Your task to perform on an android device: Open calendar and show me the second week of next month Image 0: 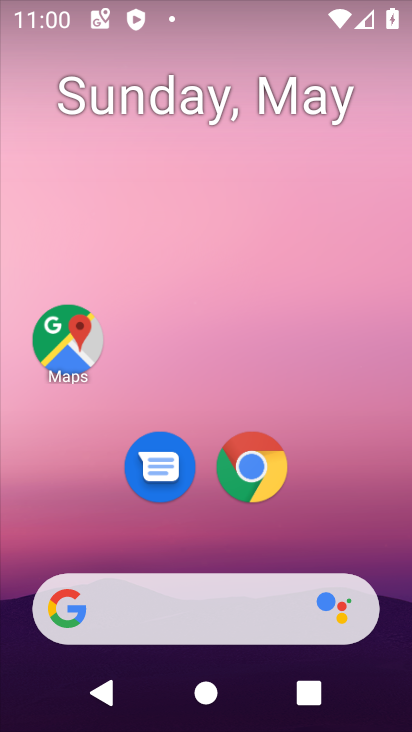
Step 0: drag from (358, 548) to (373, 26)
Your task to perform on an android device: Open calendar and show me the second week of next month Image 1: 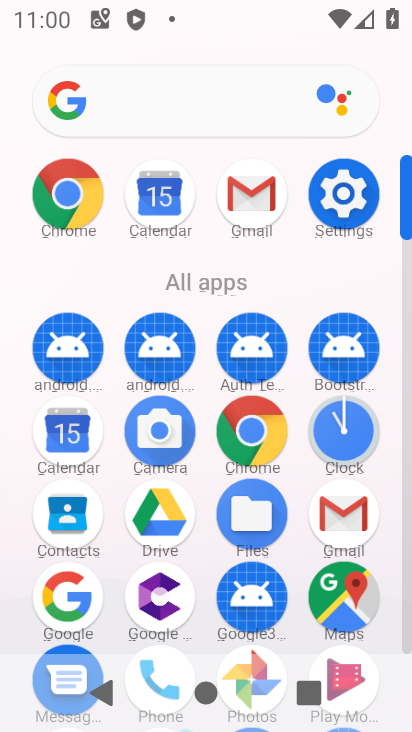
Step 1: click (166, 200)
Your task to perform on an android device: Open calendar and show me the second week of next month Image 2: 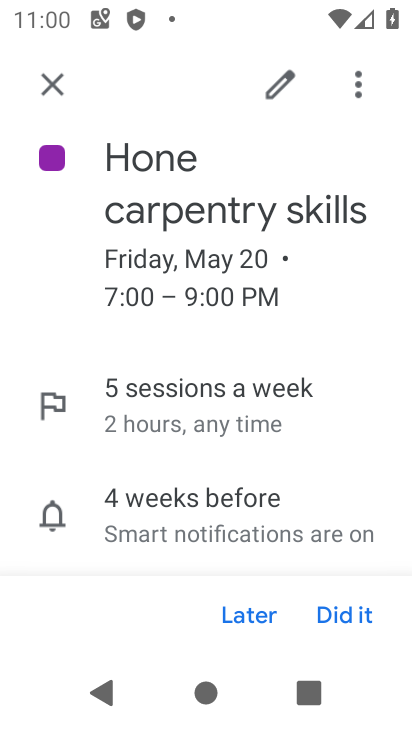
Step 2: click (57, 87)
Your task to perform on an android device: Open calendar and show me the second week of next month Image 3: 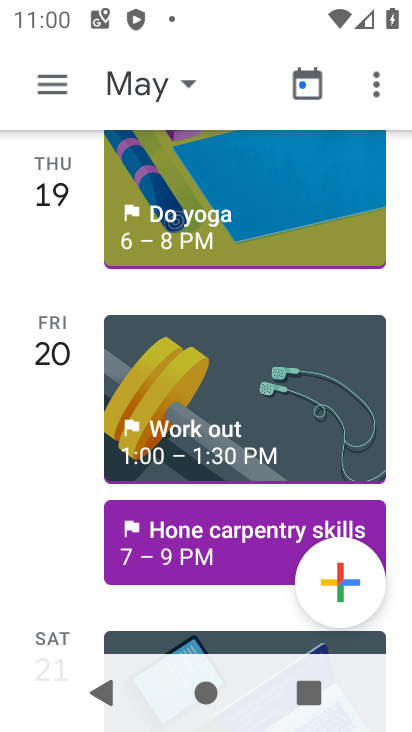
Step 3: click (191, 89)
Your task to perform on an android device: Open calendar and show me the second week of next month Image 4: 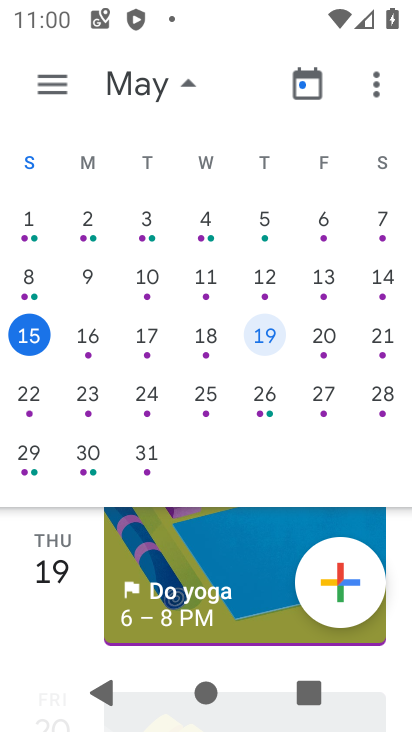
Step 4: drag from (341, 330) to (29, 340)
Your task to perform on an android device: Open calendar and show me the second week of next month Image 5: 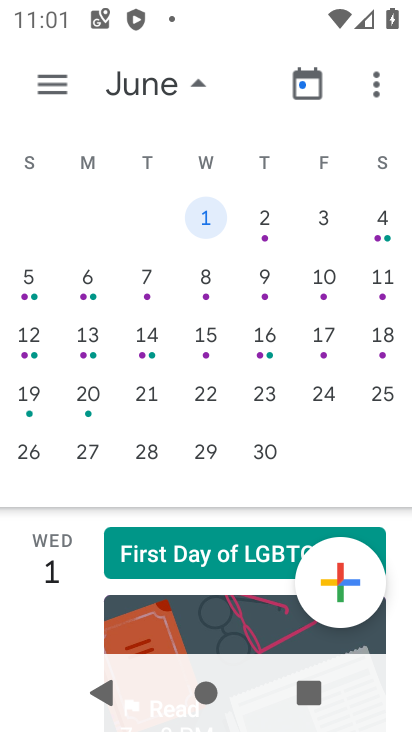
Step 5: click (72, 96)
Your task to perform on an android device: Open calendar and show me the second week of next month Image 6: 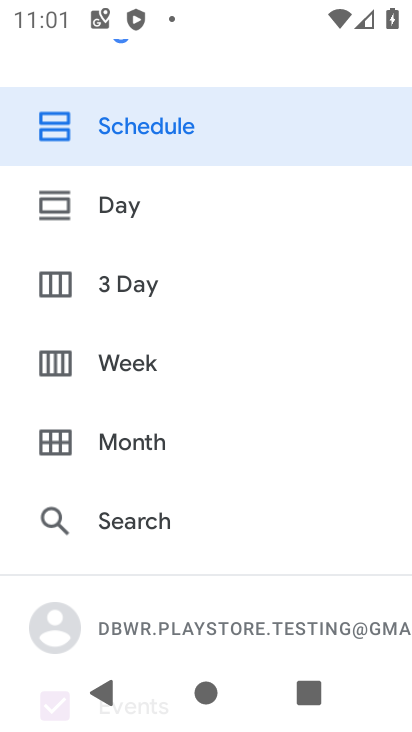
Step 6: click (57, 365)
Your task to perform on an android device: Open calendar and show me the second week of next month Image 7: 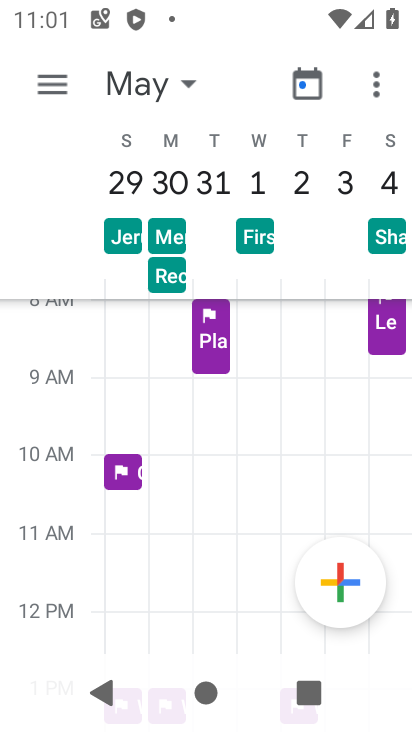
Step 7: task complete